Your task to perform on an android device: check android version Image 0: 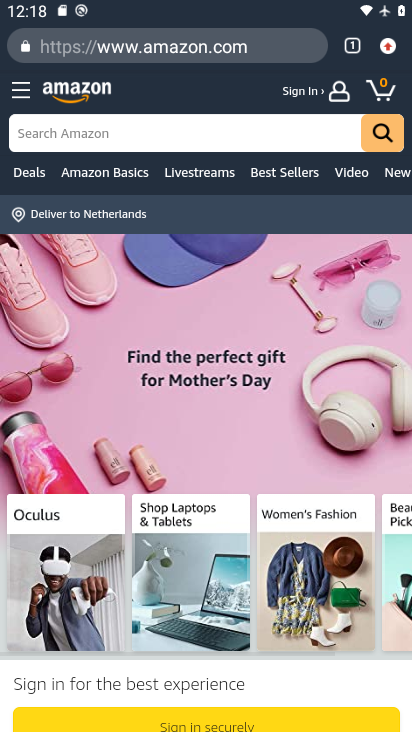
Step 0: press home button
Your task to perform on an android device: check android version Image 1: 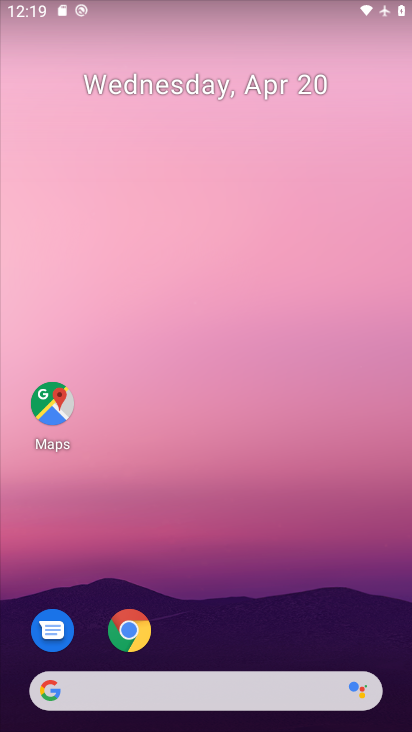
Step 1: drag from (158, 683) to (353, 75)
Your task to perform on an android device: check android version Image 2: 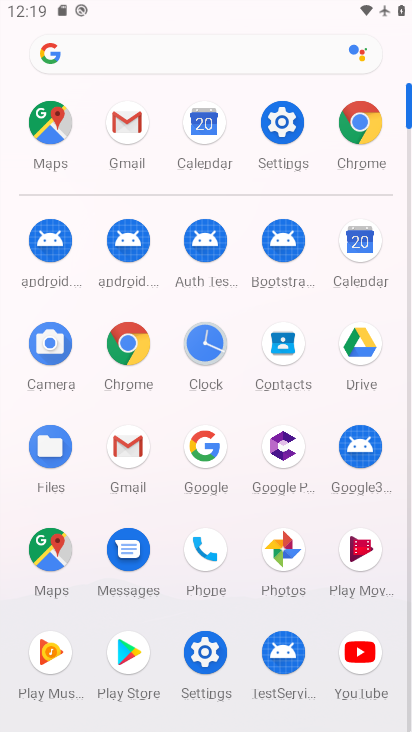
Step 2: drag from (215, 614) to (296, 264)
Your task to perform on an android device: check android version Image 3: 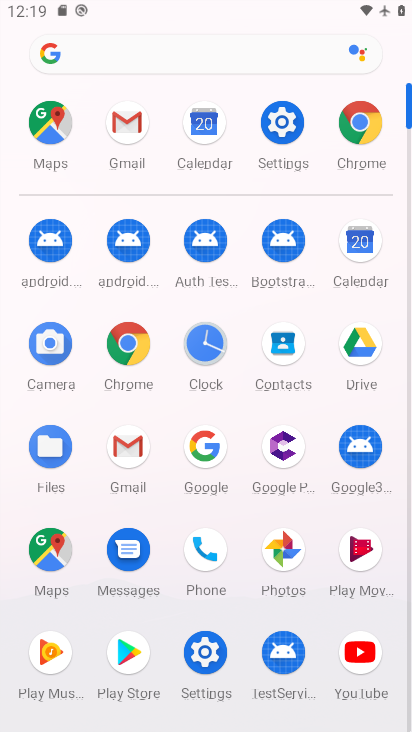
Step 3: click (205, 448)
Your task to perform on an android device: check android version Image 4: 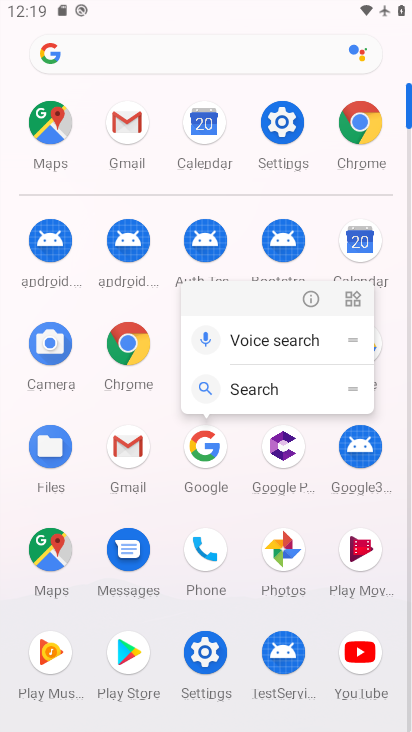
Step 4: click (311, 295)
Your task to perform on an android device: check android version Image 5: 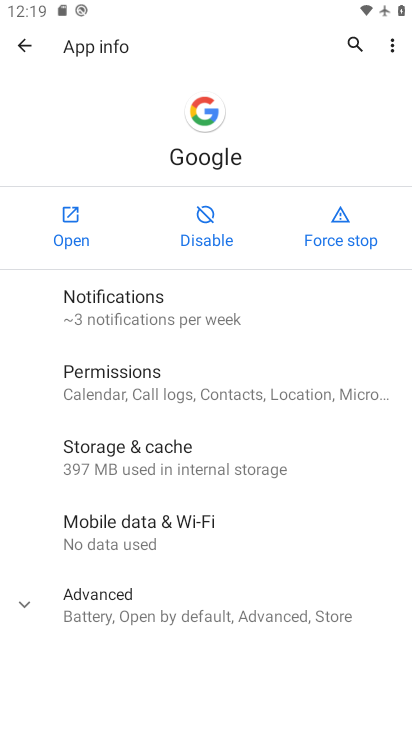
Step 5: drag from (202, 562) to (338, 312)
Your task to perform on an android device: check android version Image 6: 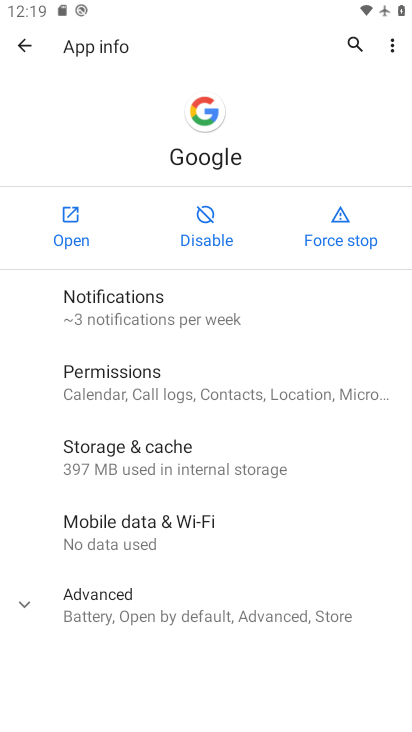
Step 6: click (92, 598)
Your task to perform on an android device: check android version Image 7: 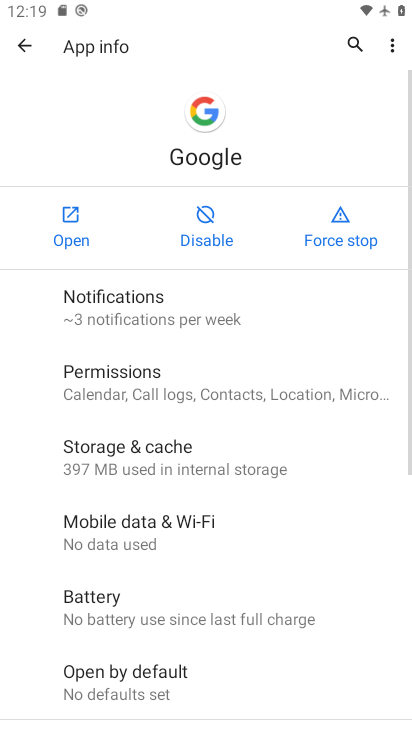
Step 7: task complete